Your task to perform on an android device: open the mobile data screen to see how much data has been used Image 0: 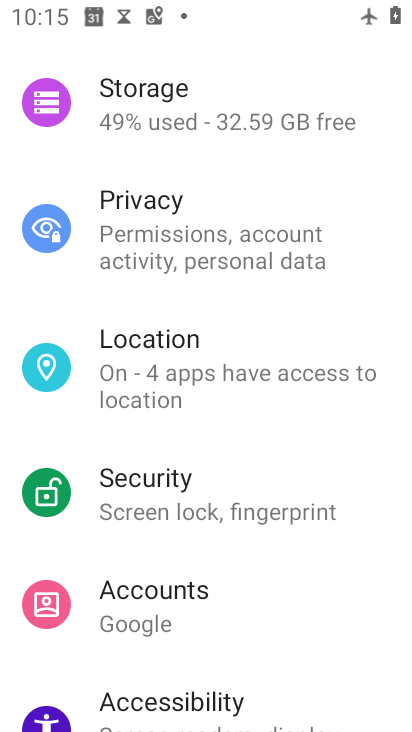
Step 0: drag from (203, 154) to (190, 564)
Your task to perform on an android device: open the mobile data screen to see how much data has been used Image 1: 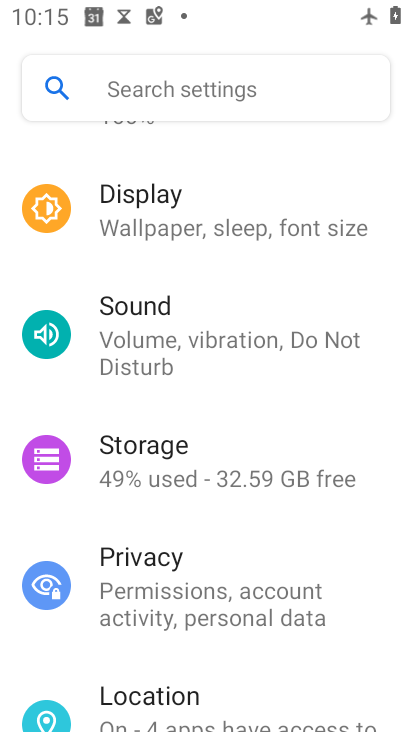
Step 1: drag from (188, 142) to (164, 535)
Your task to perform on an android device: open the mobile data screen to see how much data has been used Image 2: 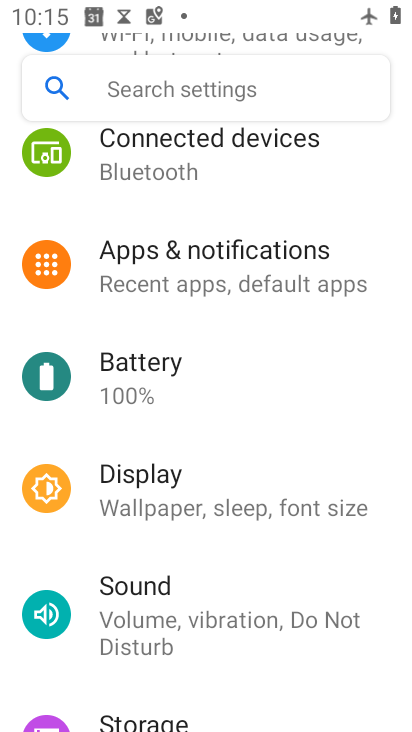
Step 2: drag from (177, 173) to (179, 560)
Your task to perform on an android device: open the mobile data screen to see how much data has been used Image 3: 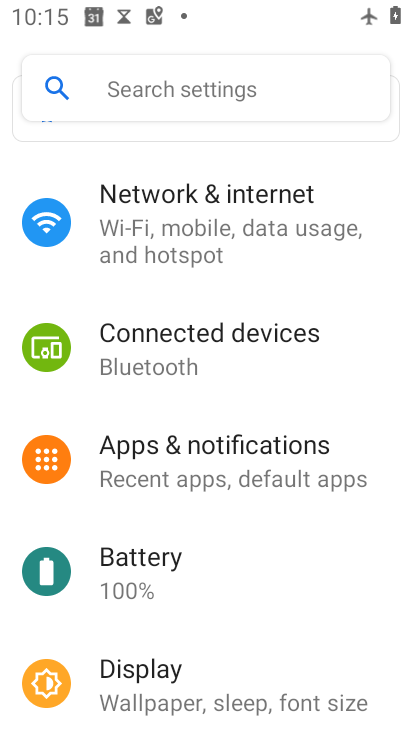
Step 3: click (166, 192)
Your task to perform on an android device: open the mobile data screen to see how much data has been used Image 4: 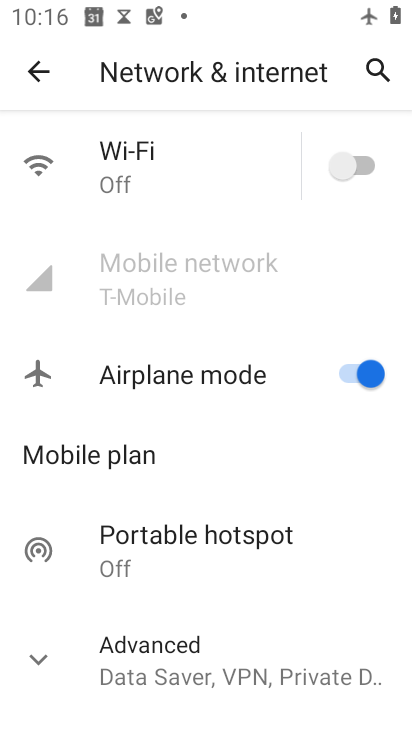
Step 4: task complete